Your task to perform on an android device: Open Yahoo.com Image 0: 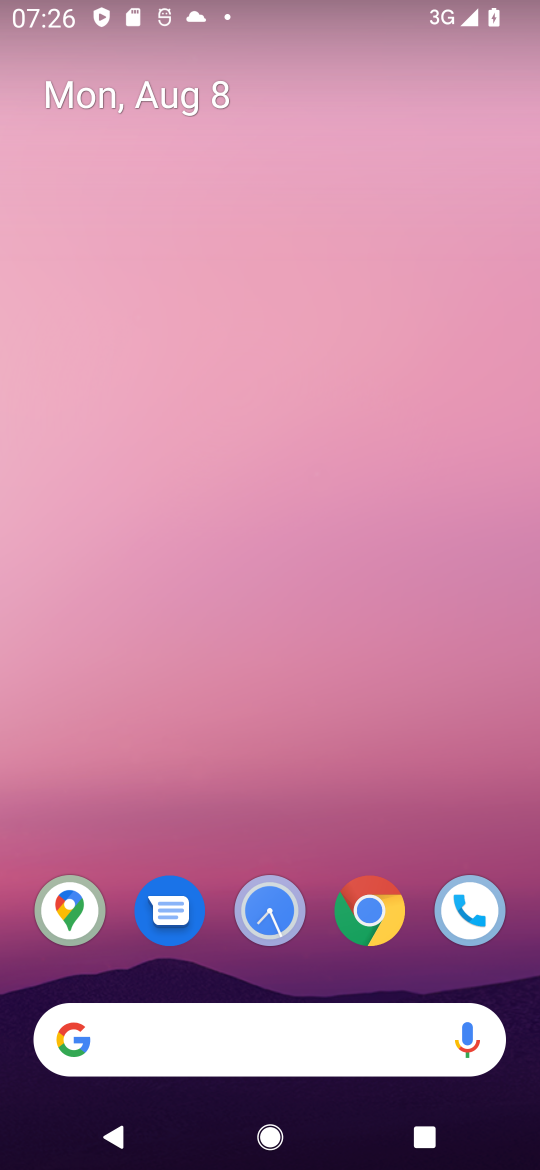
Step 0: click (371, 910)
Your task to perform on an android device: Open Yahoo.com Image 1: 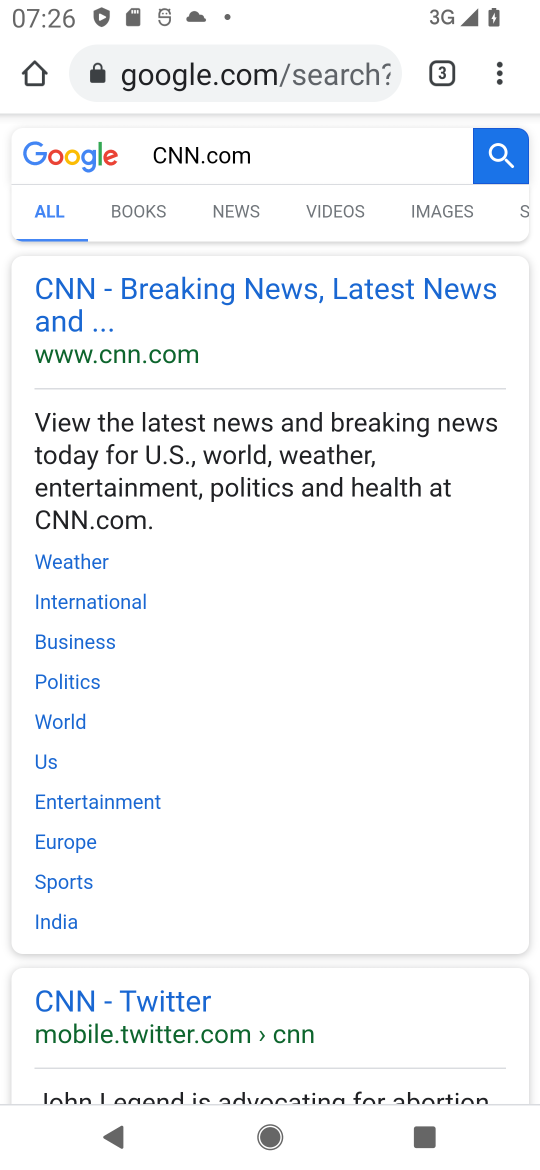
Step 1: click (323, 73)
Your task to perform on an android device: Open Yahoo.com Image 2: 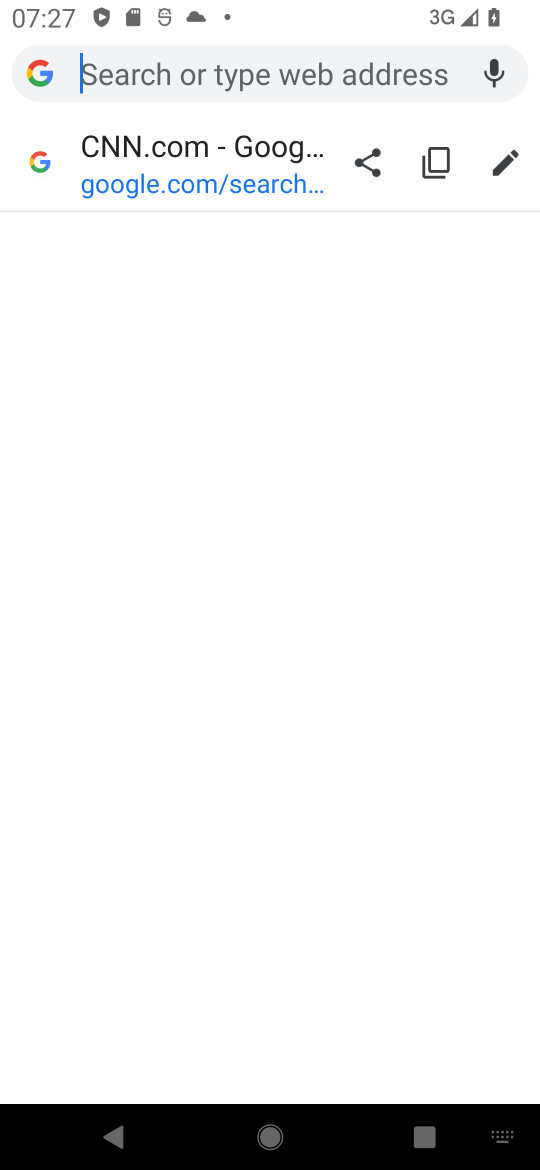
Step 2: type "Yahoo.com"
Your task to perform on an android device: Open Yahoo.com Image 3: 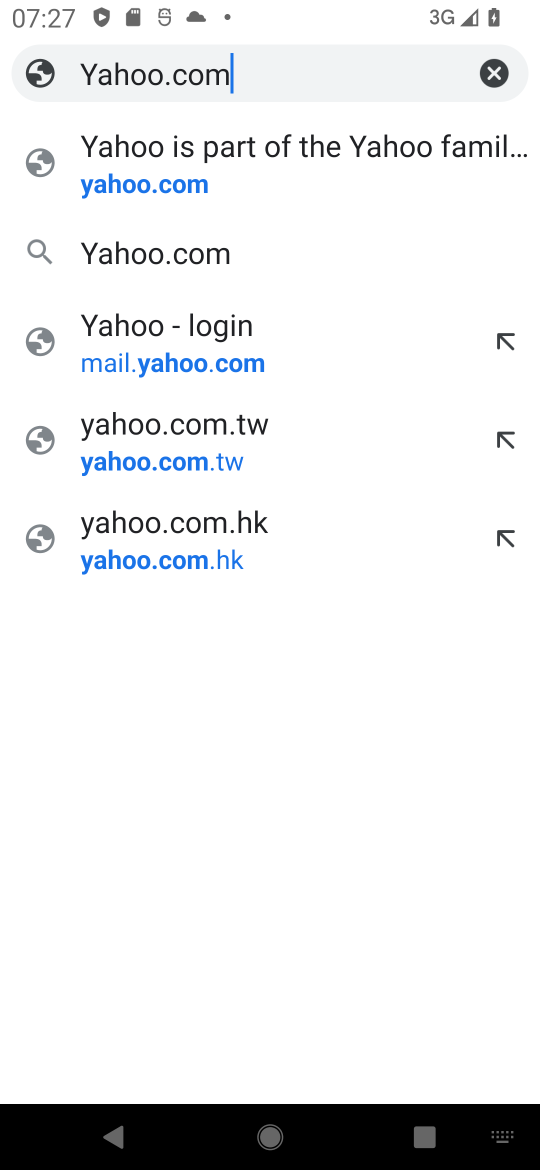
Step 3: click (211, 256)
Your task to perform on an android device: Open Yahoo.com Image 4: 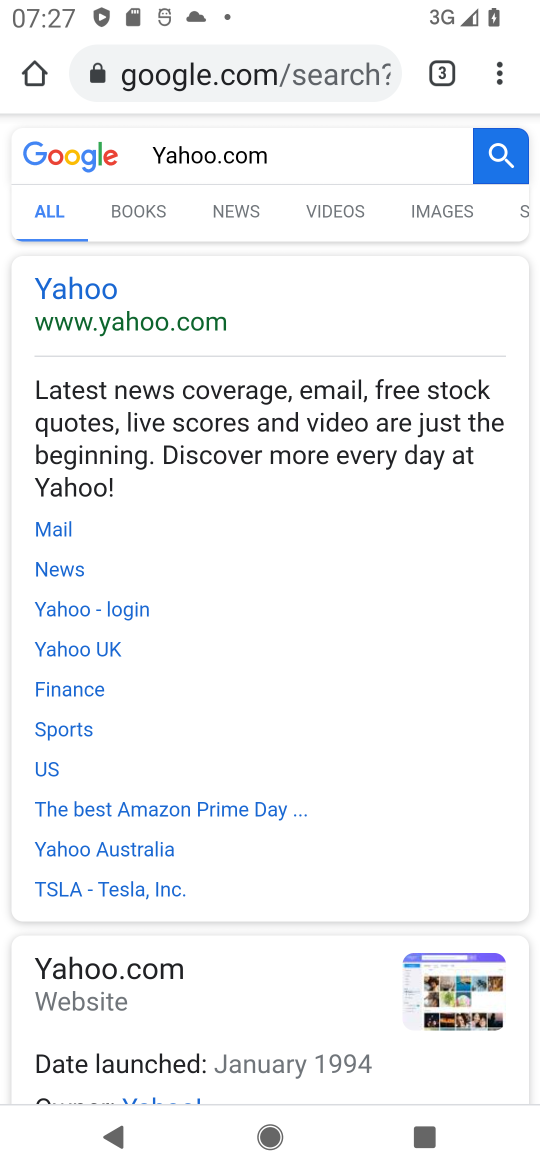
Step 4: click (188, 333)
Your task to perform on an android device: Open Yahoo.com Image 5: 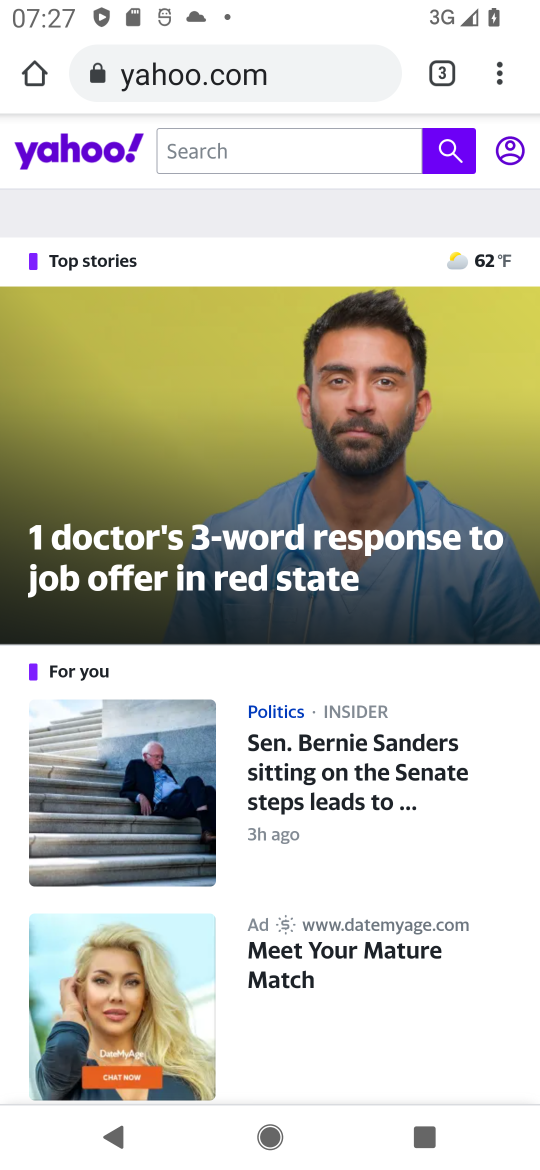
Step 5: task complete